Your task to perform on an android device: manage bookmarks in the chrome app Image 0: 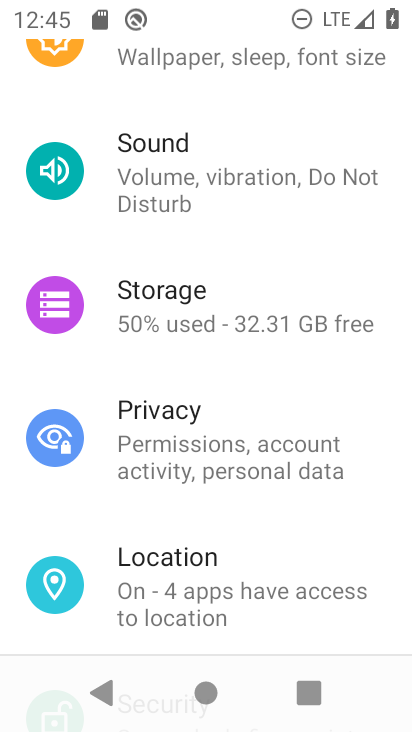
Step 0: press home button
Your task to perform on an android device: manage bookmarks in the chrome app Image 1: 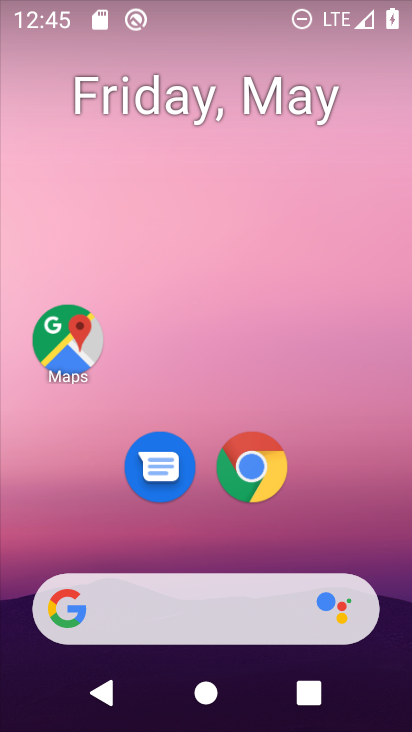
Step 1: drag from (271, 594) to (331, 10)
Your task to perform on an android device: manage bookmarks in the chrome app Image 2: 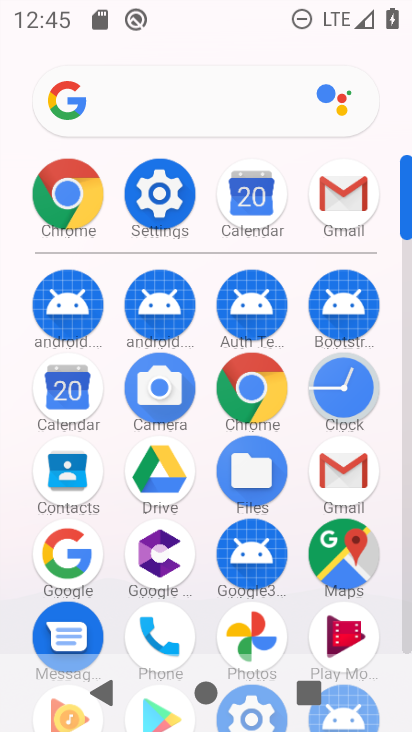
Step 2: click (274, 376)
Your task to perform on an android device: manage bookmarks in the chrome app Image 3: 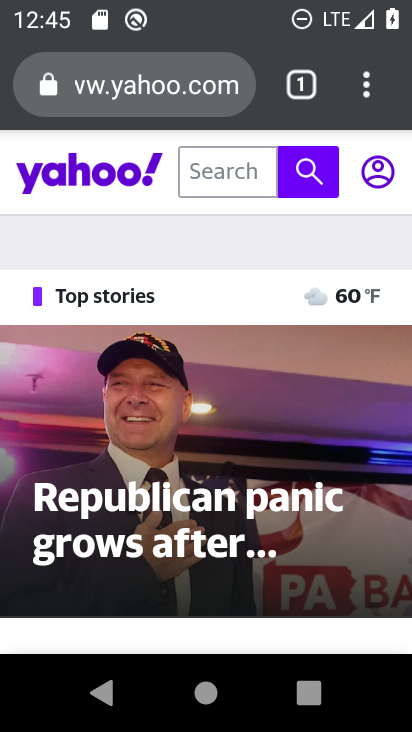
Step 3: task complete